Your task to perform on an android device: change notifications settings Image 0: 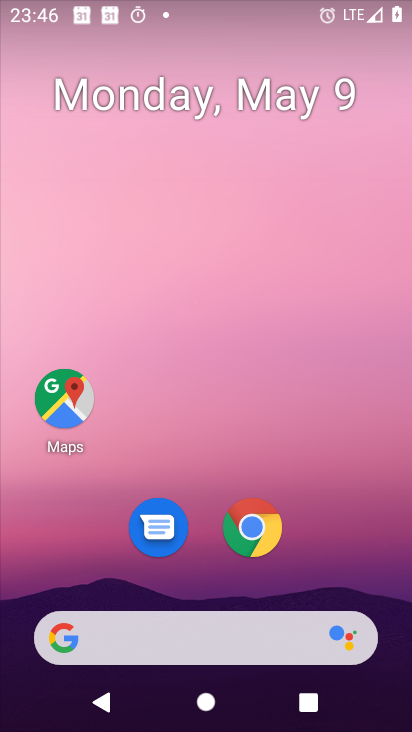
Step 0: drag from (196, 565) to (184, 69)
Your task to perform on an android device: change notifications settings Image 1: 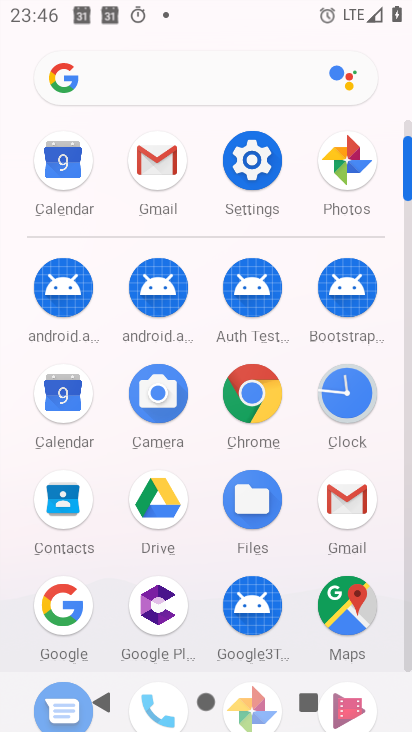
Step 1: click (251, 159)
Your task to perform on an android device: change notifications settings Image 2: 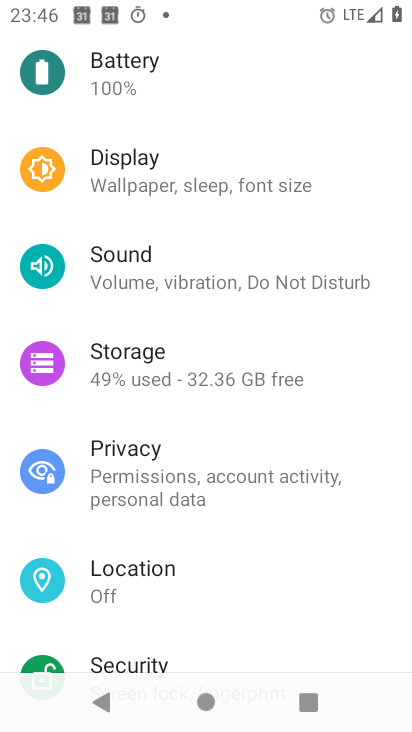
Step 2: drag from (228, 150) to (252, 694)
Your task to perform on an android device: change notifications settings Image 3: 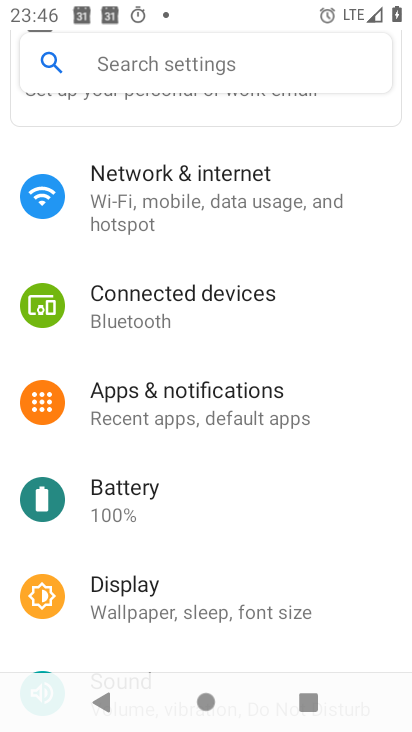
Step 3: click (173, 424)
Your task to perform on an android device: change notifications settings Image 4: 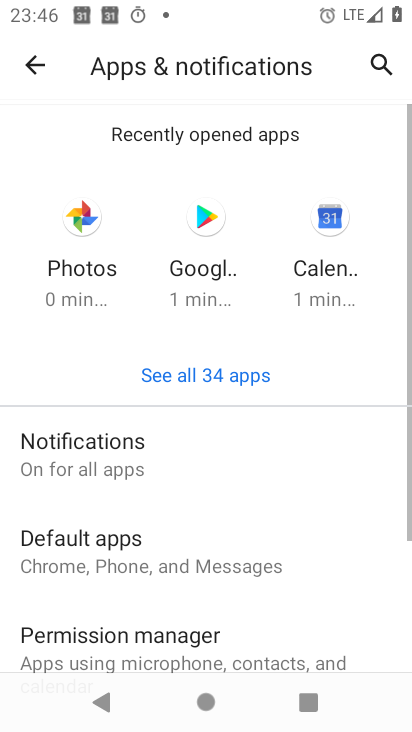
Step 4: click (126, 454)
Your task to perform on an android device: change notifications settings Image 5: 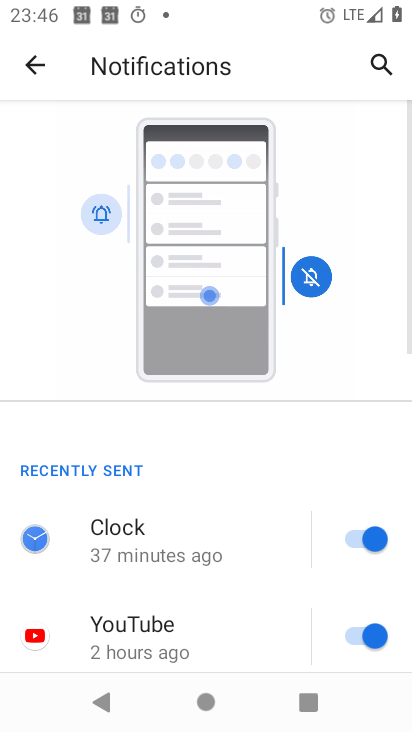
Step 5: drag from (214, 499) to (224, 73)
Your task to perform on an android device: change notifications settings Image 6: 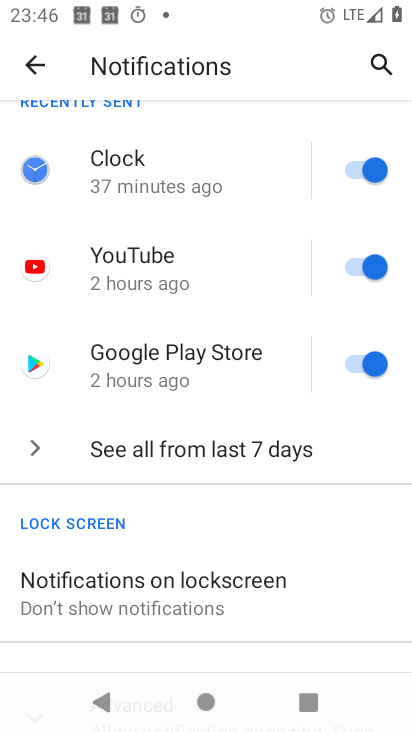
Step 6: drag from (168, 573) to (179, 213)
Your task to perform on an android device: change notifications settings Image 7: 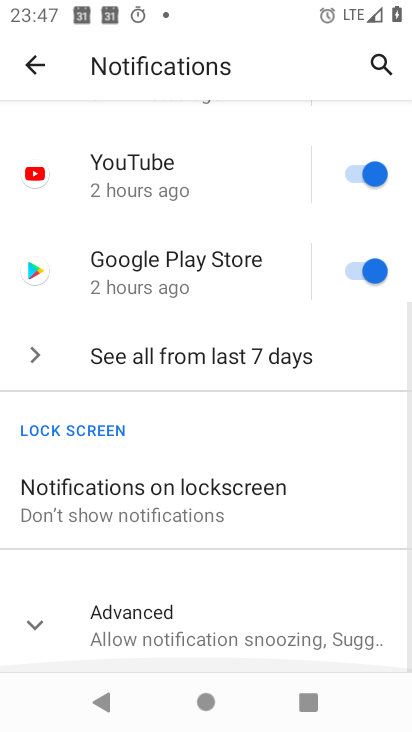
Step 7: click (137, 617)
Your task to perform on an android device: change notifications settings Image 8: 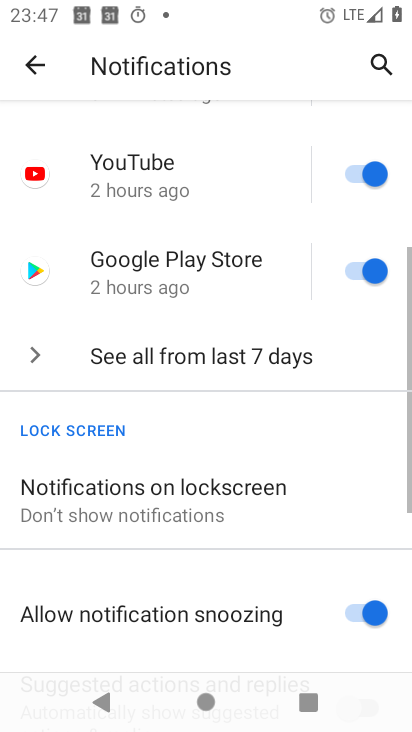
Step 8: drag from (242, 549) to (211, 260)
Your task to perform on an android device: change notifications settings Image 9: 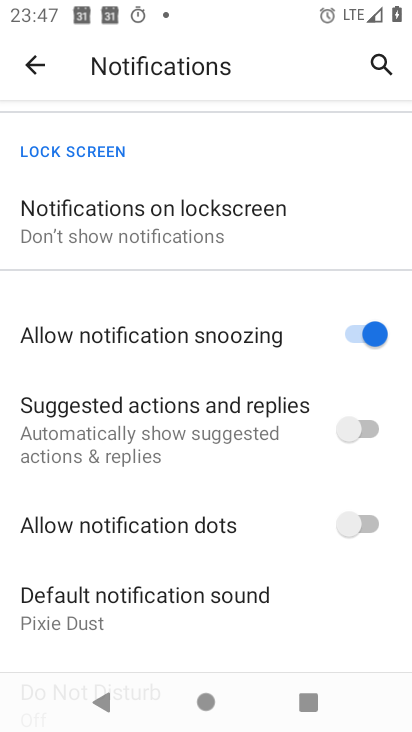
Step 9: click (342, 420)
Your task to perform on an android device: change notifications settings Image 10: 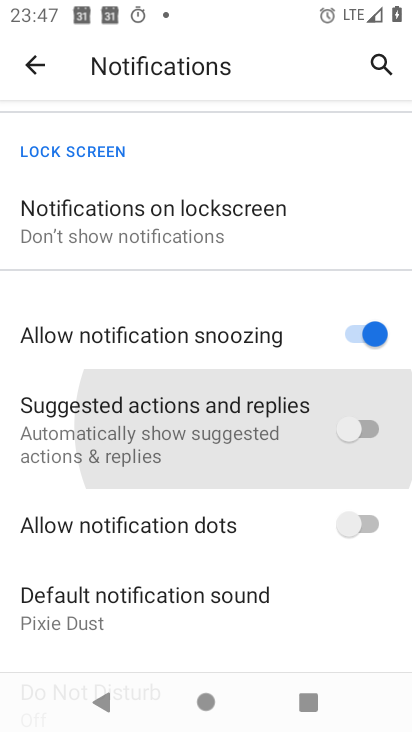
Step 10: click (364, 543)
Your task to perform on an android device: change notifications settings Image 11: 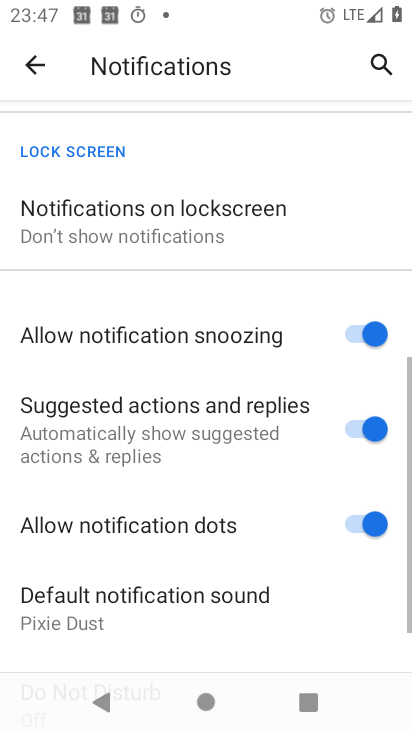
Step 11: click (371, 328)
Your task to perform on an android device: change notifications settings Image 12: 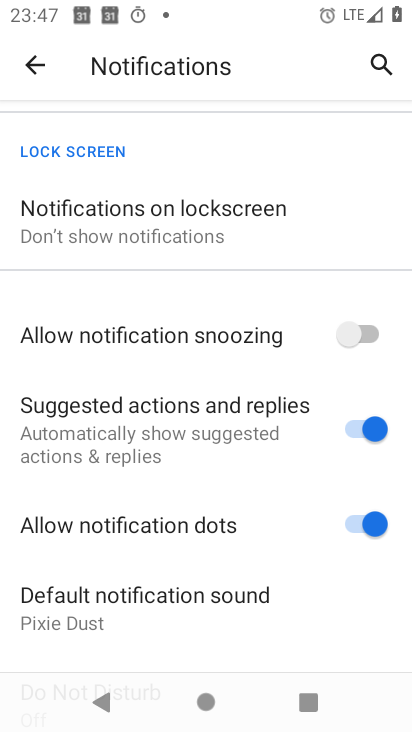
Step 12: task complete